Your task to perform on an android device: turn off javascript in the chrome app Image 0: 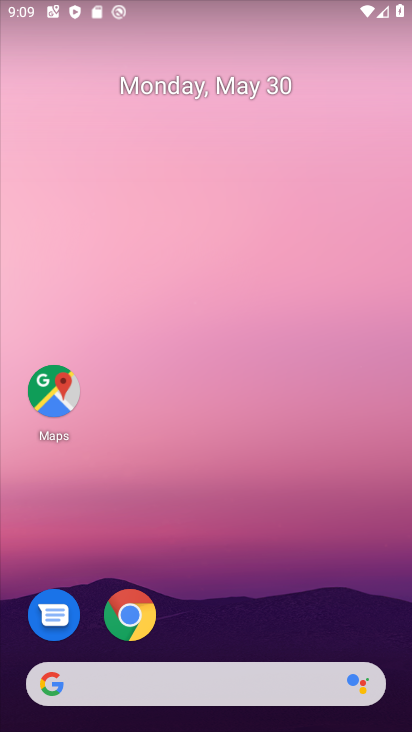
Step 0: click (134, 615)
Your task to perform on an android device: turn off javascript in the chrome app Image 1: 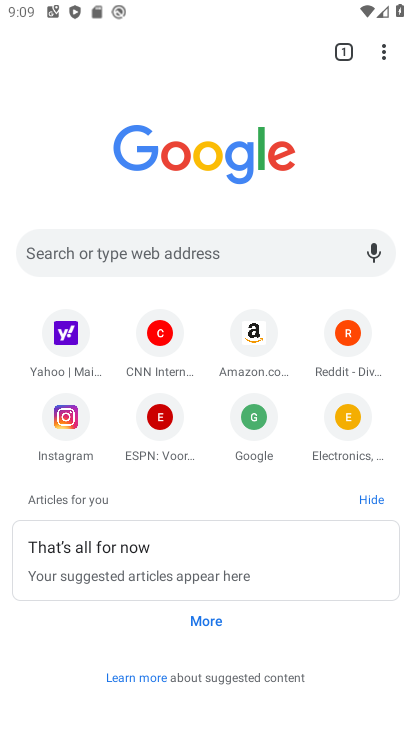
Step 1: click (383, 49)
Your task to perform on an android device: turn off javascript in the chrome app Image 2: 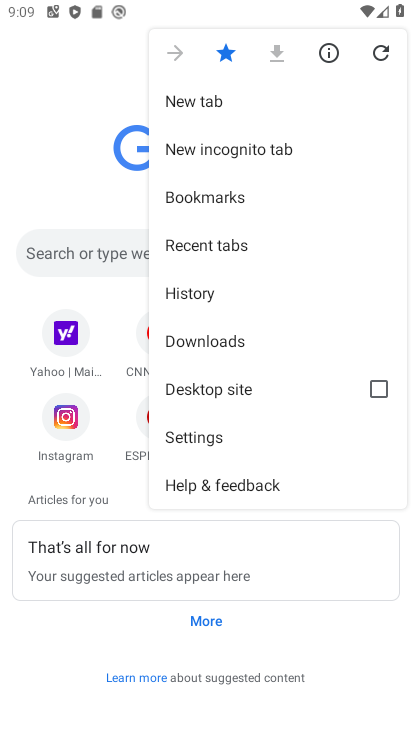
Step 2: click (217, 429)
Your task to perform on an android device: turn off javascript in the chrome app Image 3: 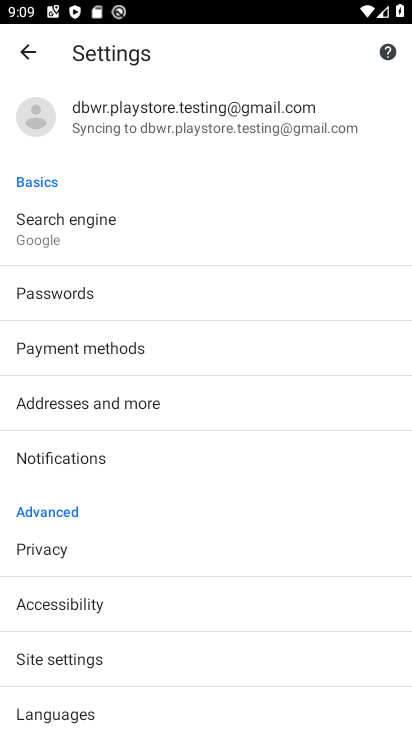
Step 3: drag from (176, 608) to (198, 255)
Your task to perform on an android device: turn off javascript in the chrome app Image 4: 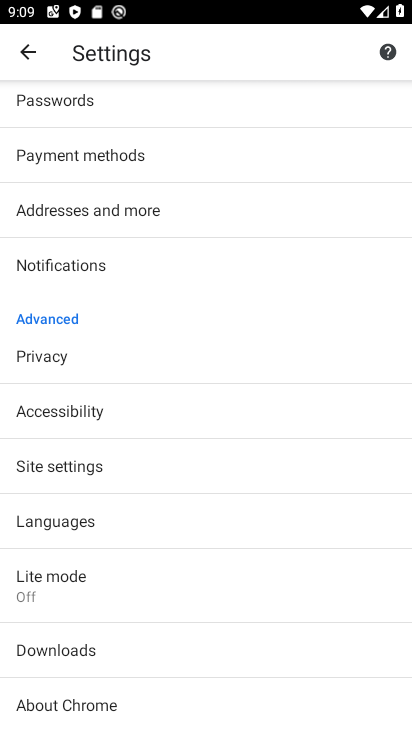
Step 4: click (102, 461)
Your task to perform on an android device: turn off javascript in the chrome app Image 5: 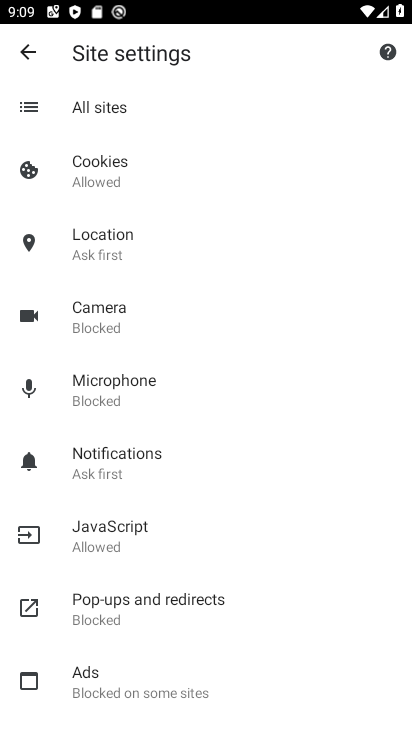
Step 5: click (151, 541)
Your task to perform on an android device: turn off javascript in the chrome app Image 6: 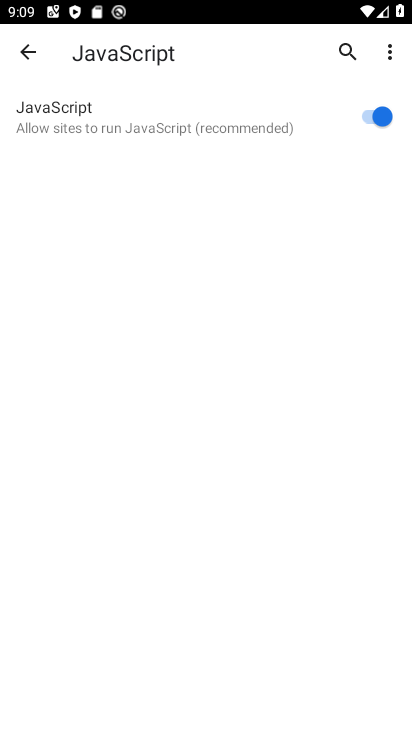
Step 6: click (378, 115)
Your task to perform on an android device: turn off javascript in the chrome app Image 7: 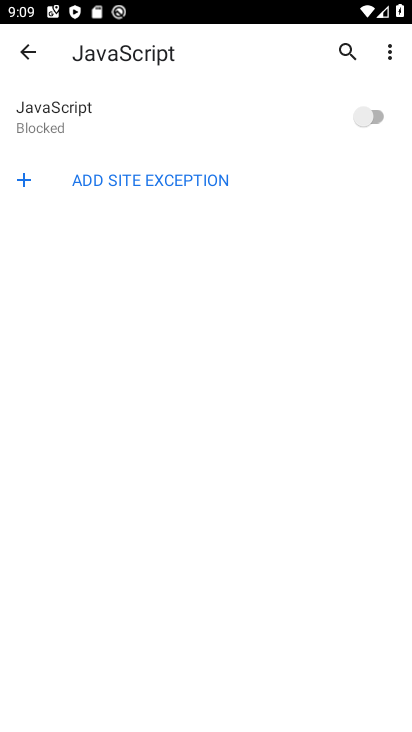
Step 7: task complete